Your task to perform on an android device: Go to Wikipedia Image 0: 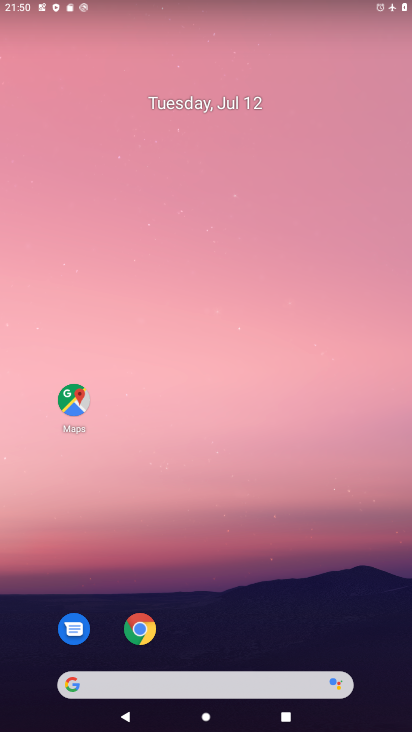
Step 0: drag from (319, 625) to (283, 228)
Your task to perform on an android device: Go to Wikipedia Image 1: 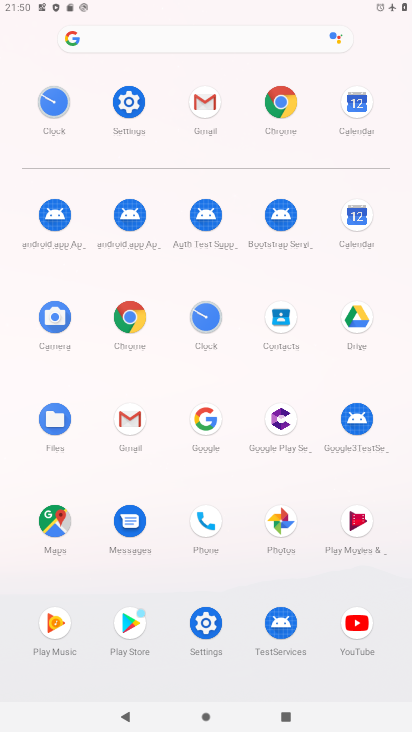
Step 1: click (135, 318)
Your task to perform on an android device: Go to Wikipedia Image 2: 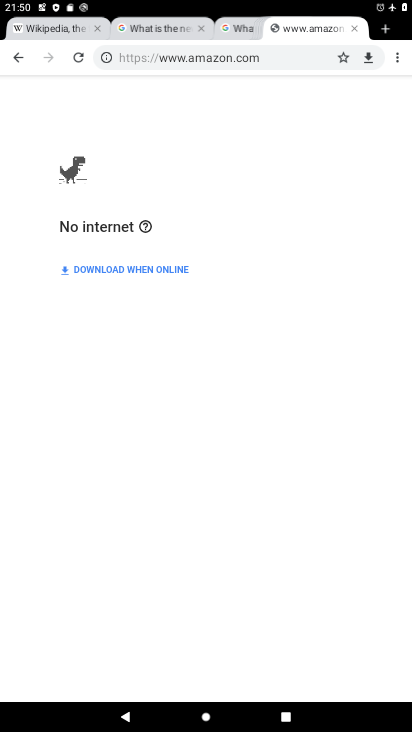
Step 2: click (396, 52)
Your task to perform on an android device: Go to Wikipedia Image 3: 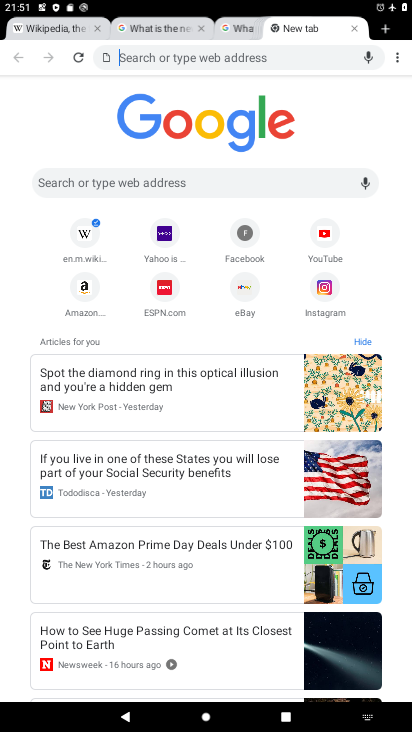
Step 3: click (88, 232)
Your task to perform on an android device: Go to Wikipedia Image 4: 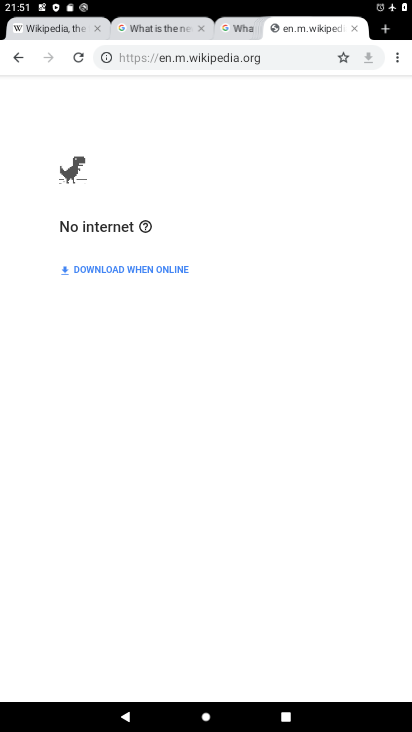
Step 4: task complete